Your task to perform on an android device: Open the stopwatch Image 0: 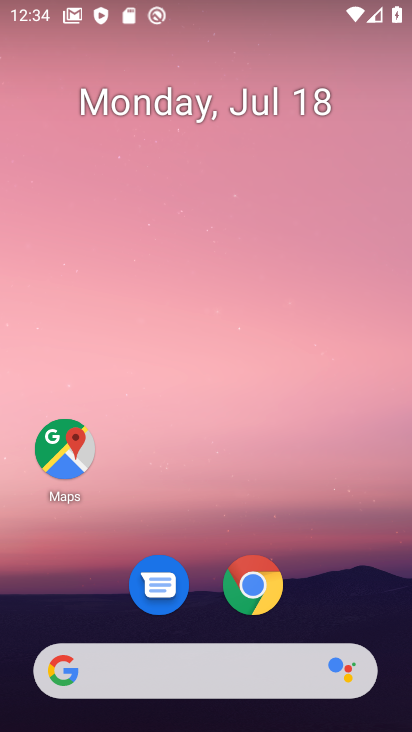
Step 0: press home button
Your task to perform on an android device: Open the stopwatch Image 1: 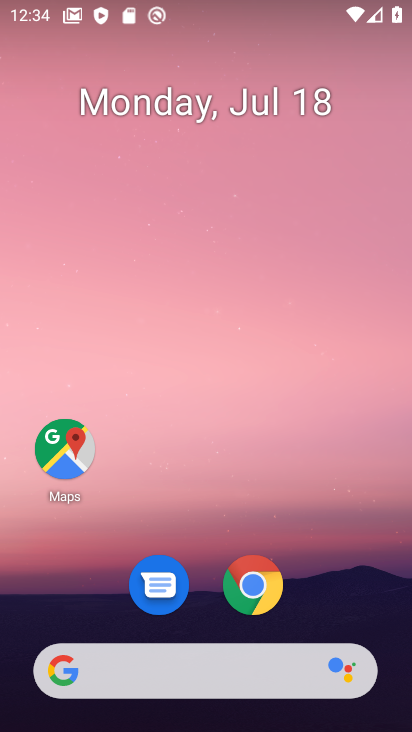
Step 1: drag from (222, 698) to (374, 194)
Your task to perform on an android device: Open the stopwatch Image 2: 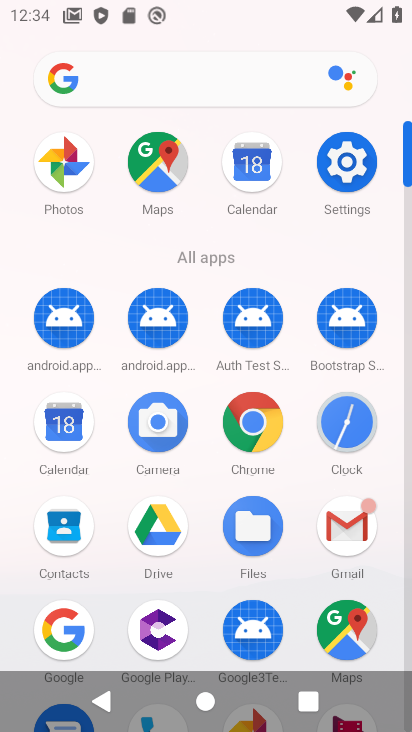
Step 2: click (347, 416)
Your task to perform on an android device: Open the stopwatch Image 3: 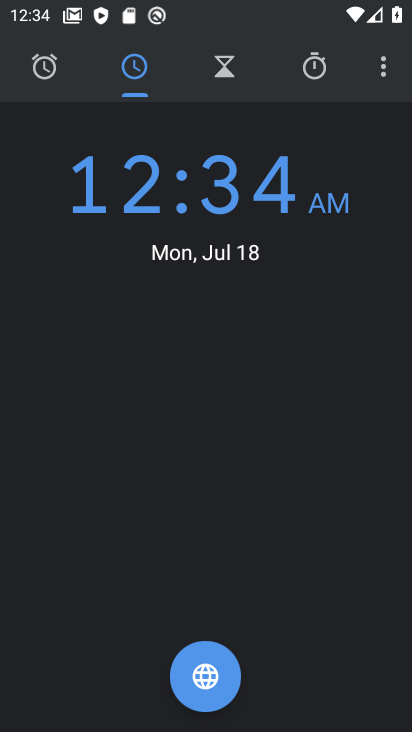
Step 3: click (323, 67)
Your task to perform on an android device: Open the stopwatch Image 4: 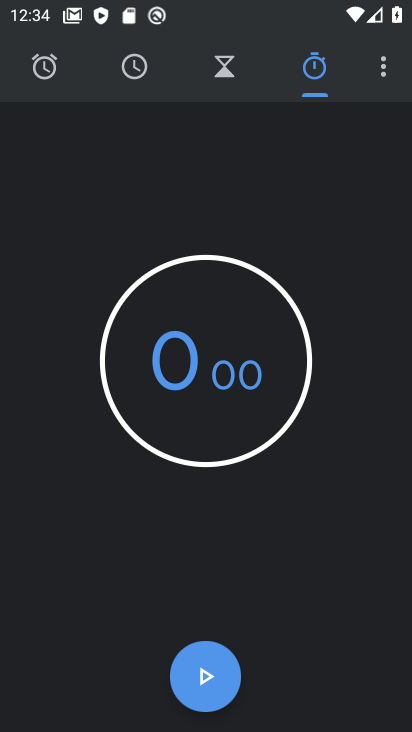
Step 4: task complete